Your task to perform on an android device: Open Chrome and go to settings Image 0: 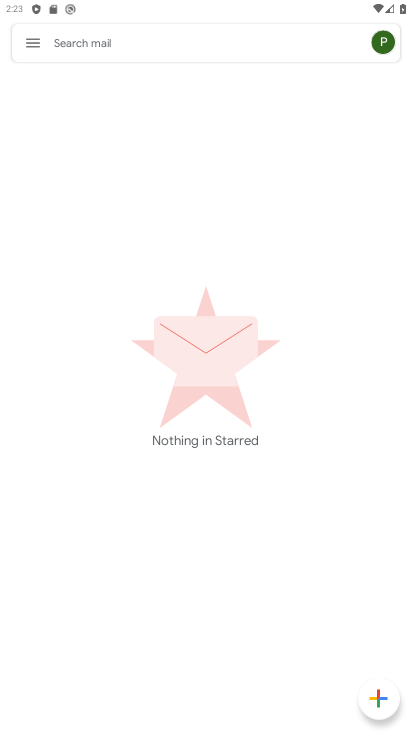
Step 0: press home button
Your task to perform on an android device: Open Chrome and go to settings Image 1: 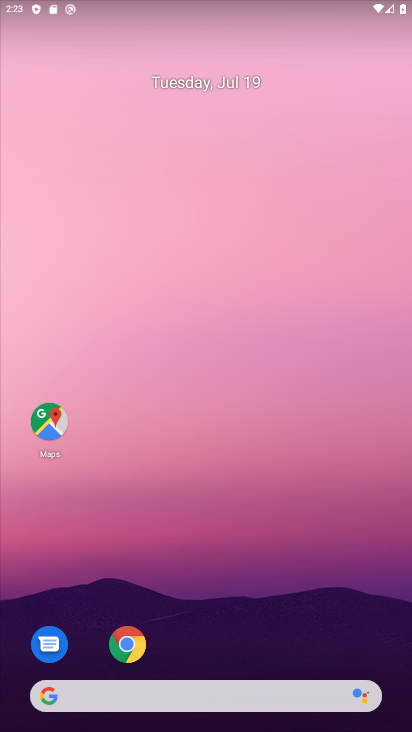
Step 1: click (131, 654)
Your task to perform on an android device: Open Chrome and go to settings Image 2: 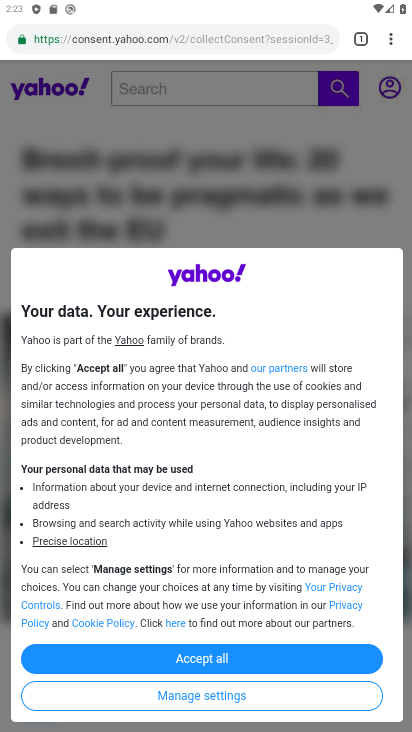
Step 2: click (390, 31)
Your task to perform on an android device: Open Chrome and go to settings Image 3: 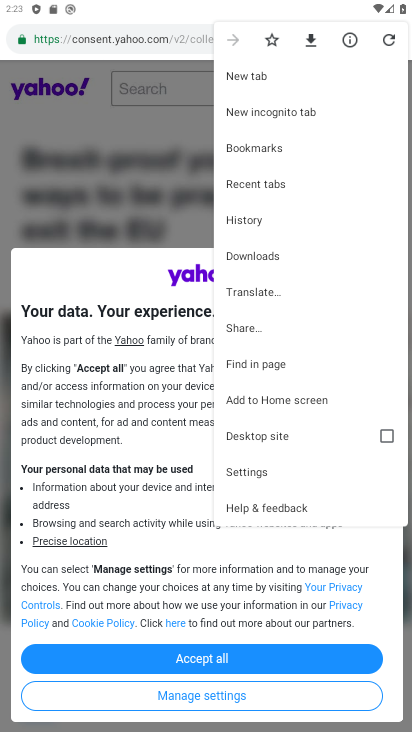
Step 3: click (244, 479)
Your task to perform on an android device: Open Chrome and go to settings Image 4: 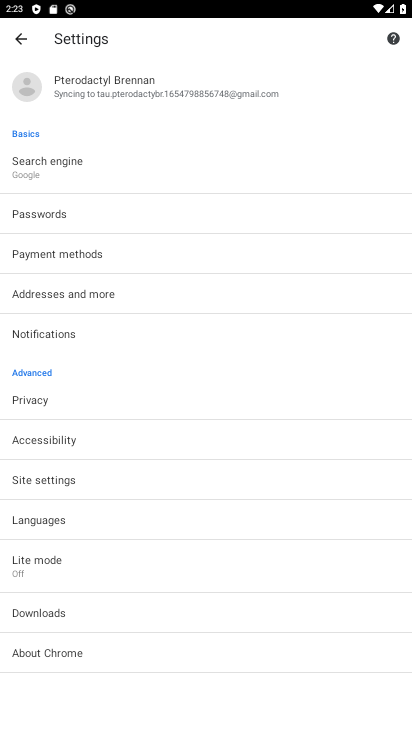
Step 4: task complete